Your task to perform on an android device: Check the news Image 0: 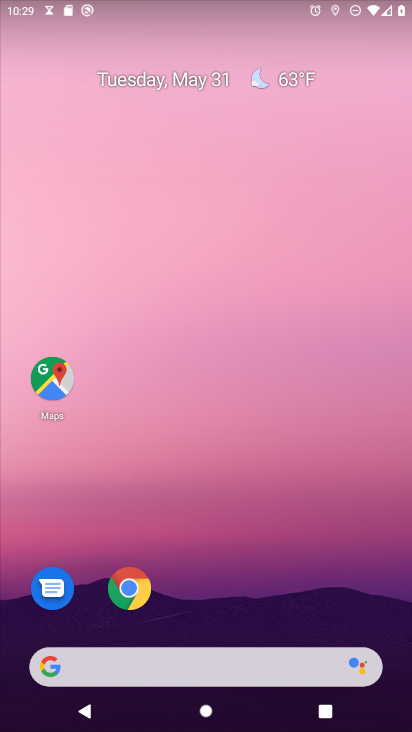
Step 0: drag from (245, 609) to (240, 105)
Your task to perform on an android device: Check the news Image 1: 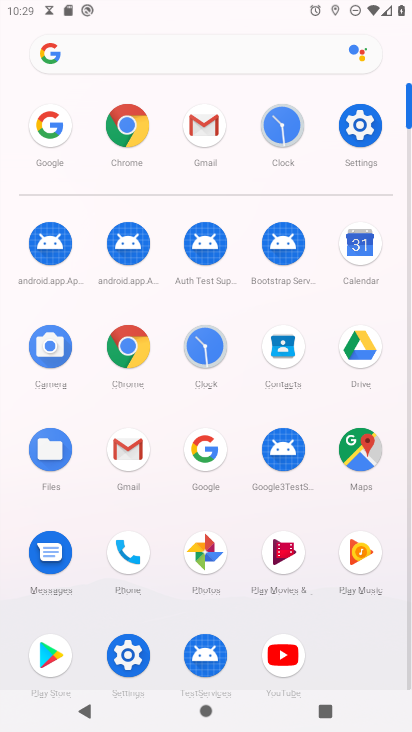
Step 1: click (201, 448)
Your task to perform on an android device: Check the news Image 2: 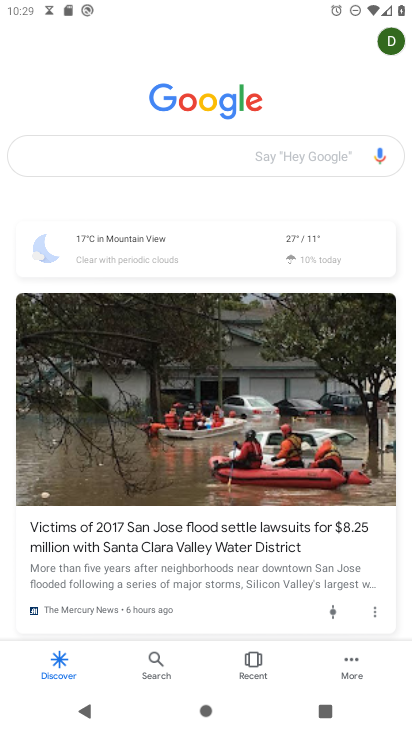
Step 2: click (241, 132)
Your task to perform on an android device: Check the news Image 3: 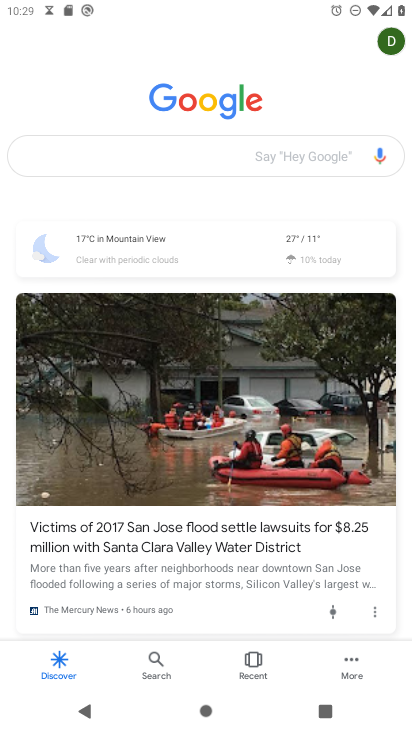
Step 3: click (231, 154)
Your task to perform on an android device: Check the news Image 4: 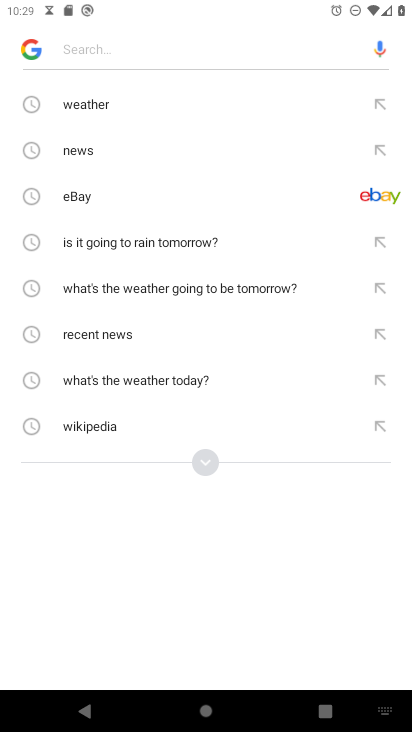
Step 4: click (78, 156)
Your task to perform on an android device: Check the news Image 5: 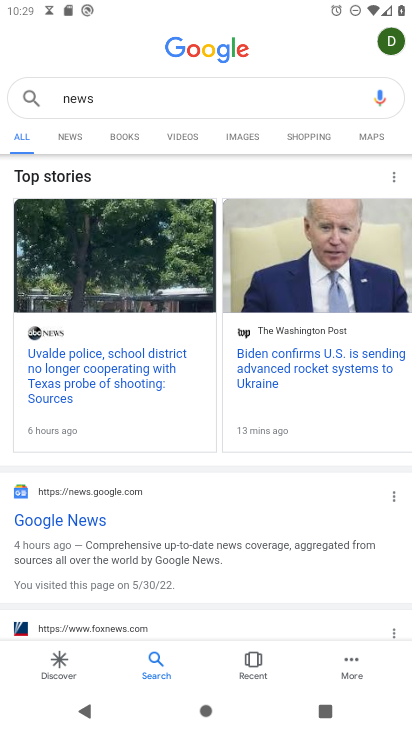
Step 5: click (95, 365)
Your task to perform on an android device: Check the news Image 6: 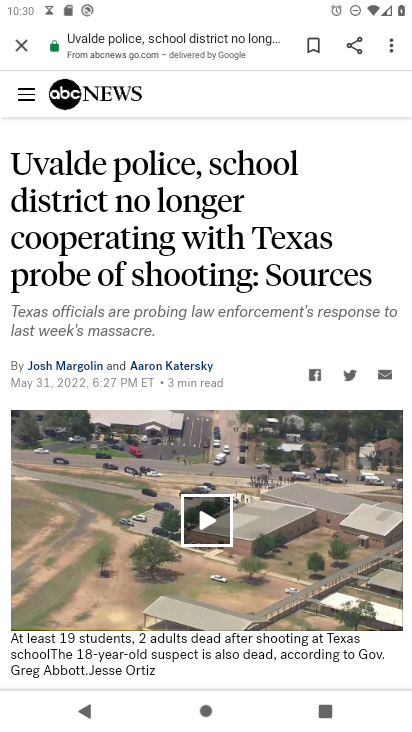
Step 6: task complete